Your task to perform on an android device: Open Wikipedia Image 0: 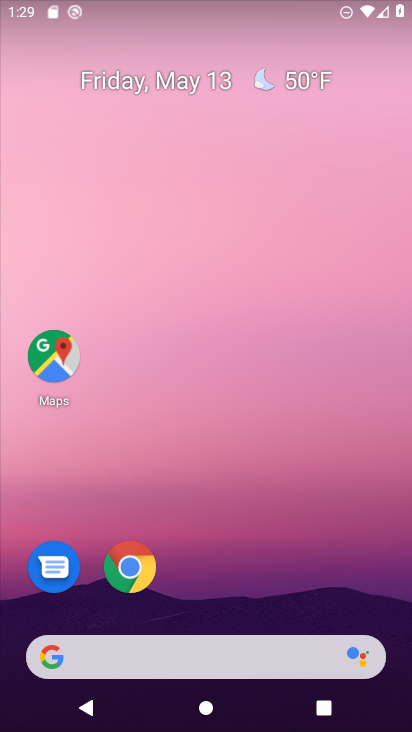
Step 0: click (131, 561)
Your task to perform on an android device: Open Wikipedia Image 1: 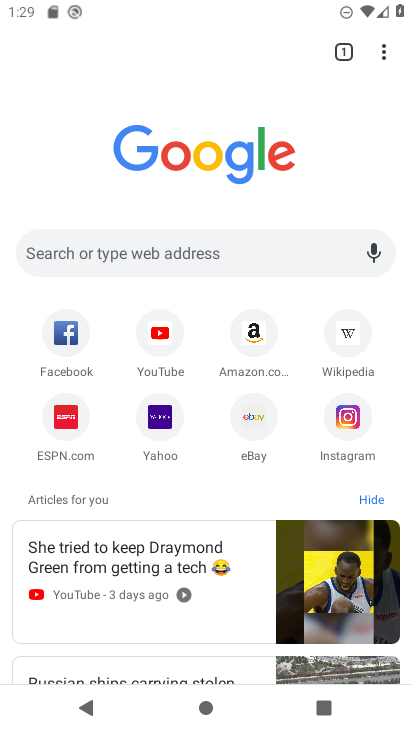
Step 1: click (351, 328)
Your task to perform on an android device: Open Wikipedia Image 2: 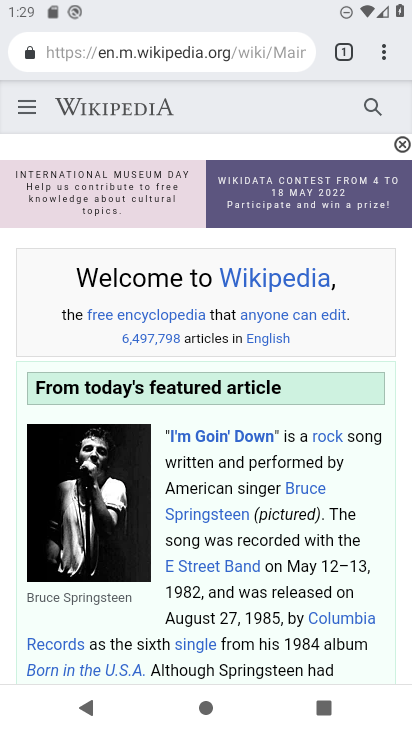
Step 2: task complete